Your task to perform on an android device: Open Android settings Image 0: 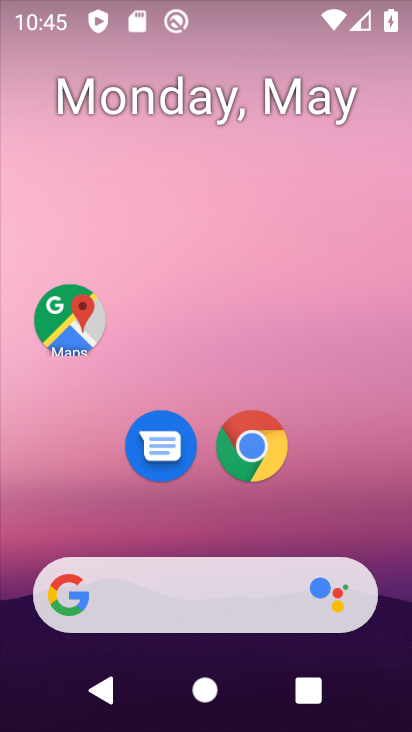
Step 0: drag from (324, 462) to (222, 4)
Your task to perform on an android device: Open Android settings Image 1: 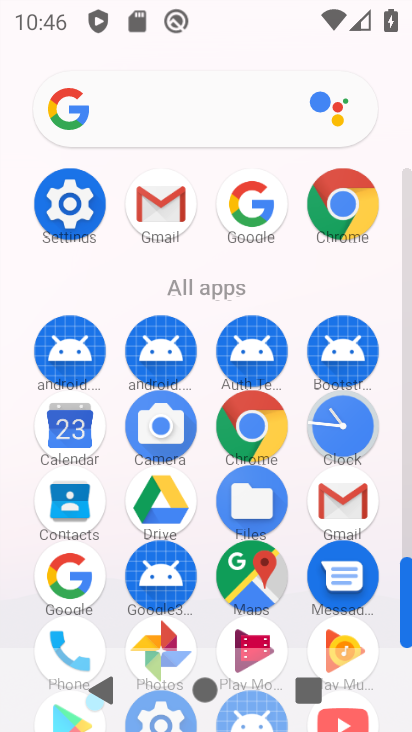
Step 1: click (81, 204)
Your task to perform on an android device: Open Android settings Image 2: 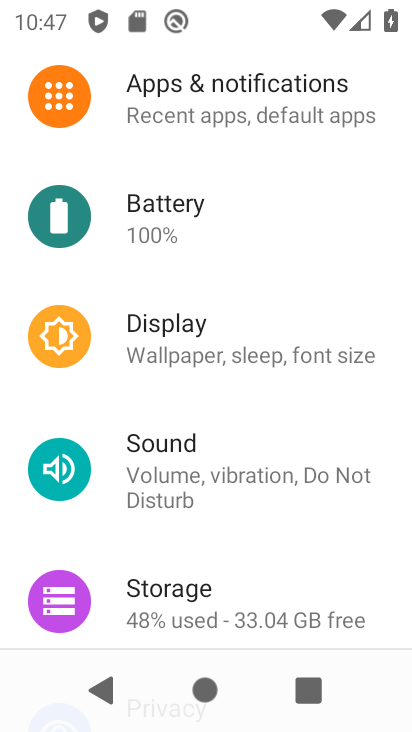
Step 2: drag from (110, 474) to (7, 4)
Your task to perform on an android device: Open Android settings Image 3: 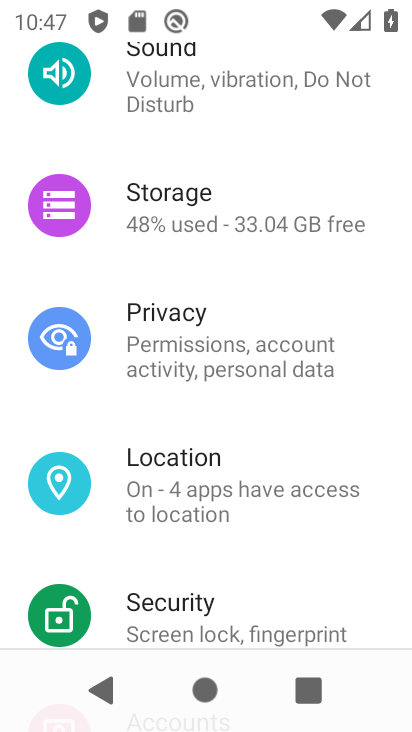
Step 3: drag from (105, 429) to (89, 9)
Your task to perform on an android device: Open Android settings Image 4: 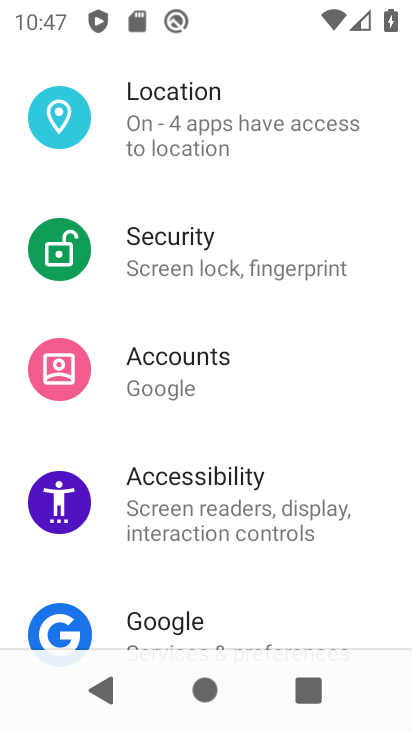
Step 4: drag from (185, 488) to (193, 107)
Your task to perform on an android device: Open Android settings Image 5: 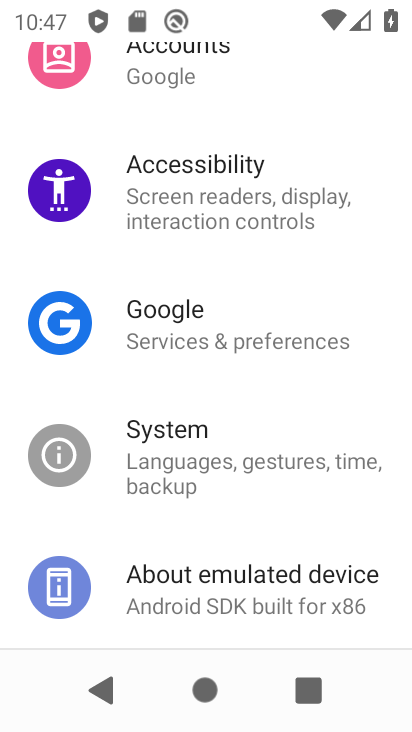
Step 5: drag from (209, 616) to (234, 396)
Your task to perform on an android device: Open Android settings Image 6: 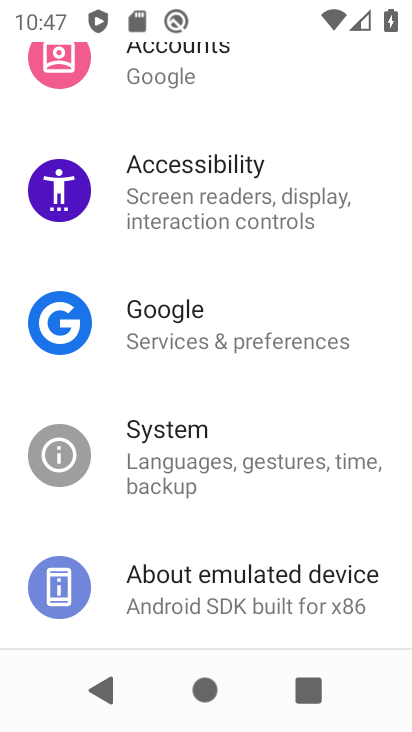
Step 6: click (247, 585)
Your task to perform on an android device: Open Android settings Image 7: 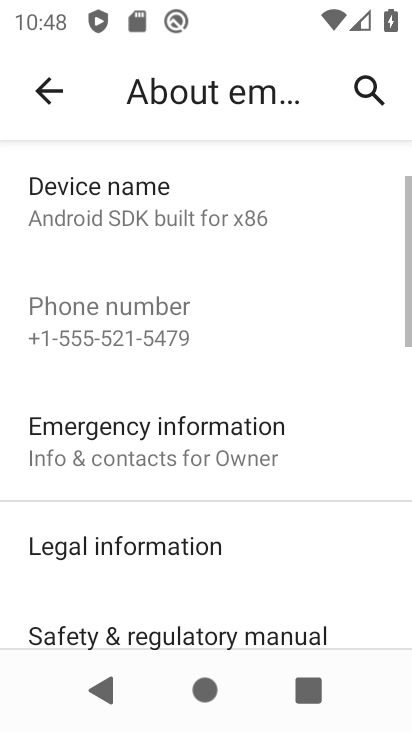
Step 7: drag from (263, 518) to (225, 155)
Your task to perform on an android device: Open Android settings Image 8: 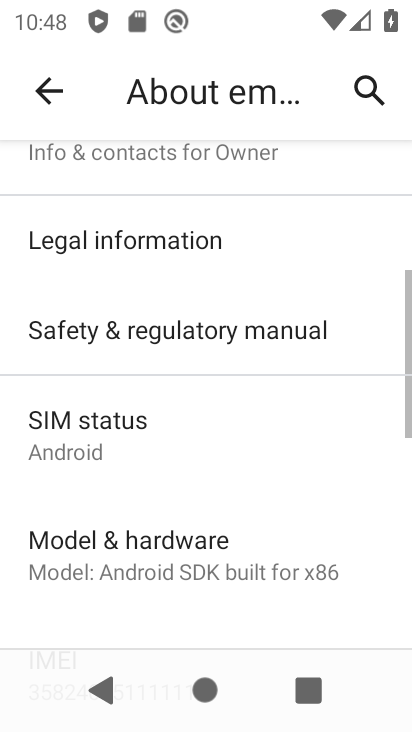
Step 8: drag from (232, 553) to (204, 210)
Your task to perform on an android device: Open Android settings Image 9: 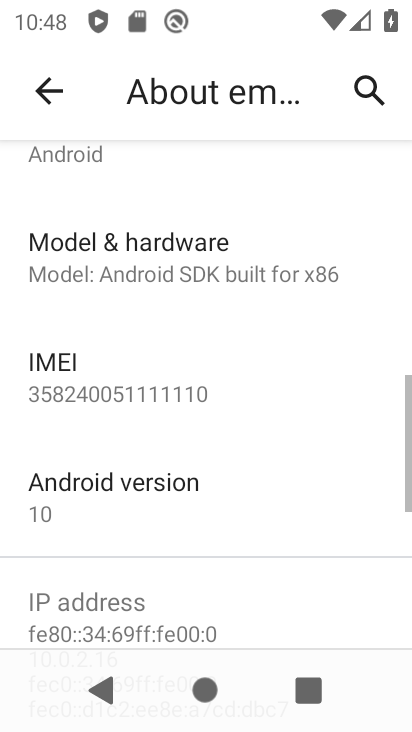
Step 9: drag from (204, 211) to (230, 594)
Your task to perform on an android device: Open Android settings Image 10: 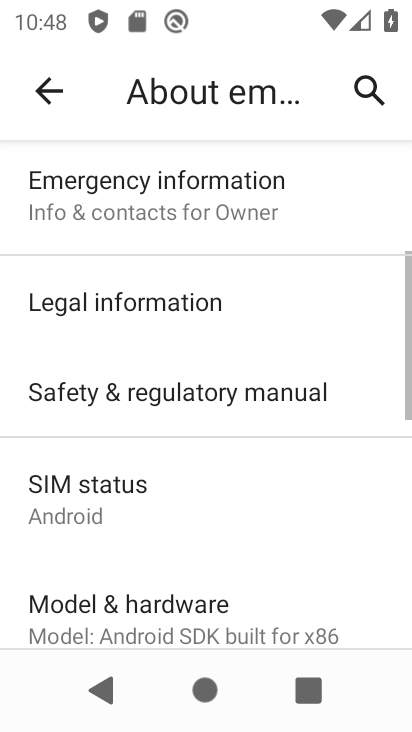
Step 10: drag from (229, 589) to (233, 127)
Your task to perform on an android device: Open Android settings Image 11: 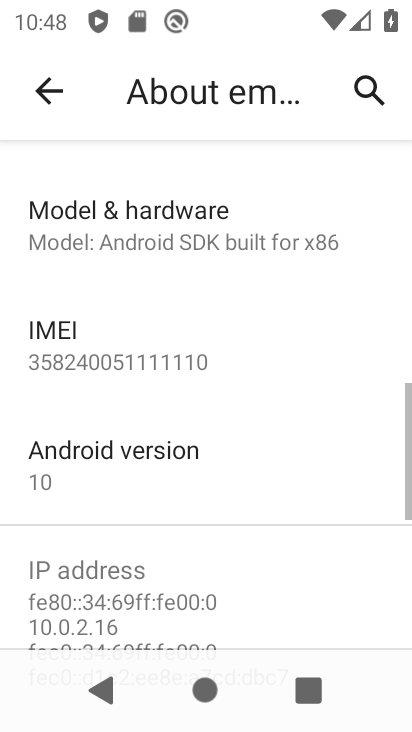
Step 11: click (117, 471)
Your task to perform on an android device: Open Android settings Image 12: 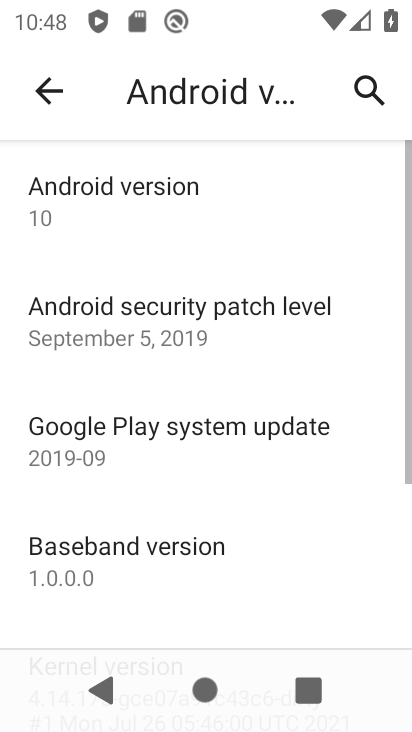
Step 12: click (107, 182)
Your task to perform on an android device: Open Android settings Image 13: 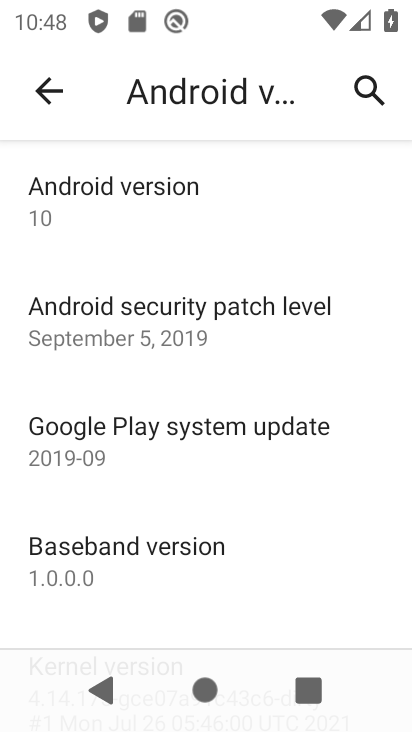
Step 13: task complete